Your task to perform on an android device: Open location settings Image 0: 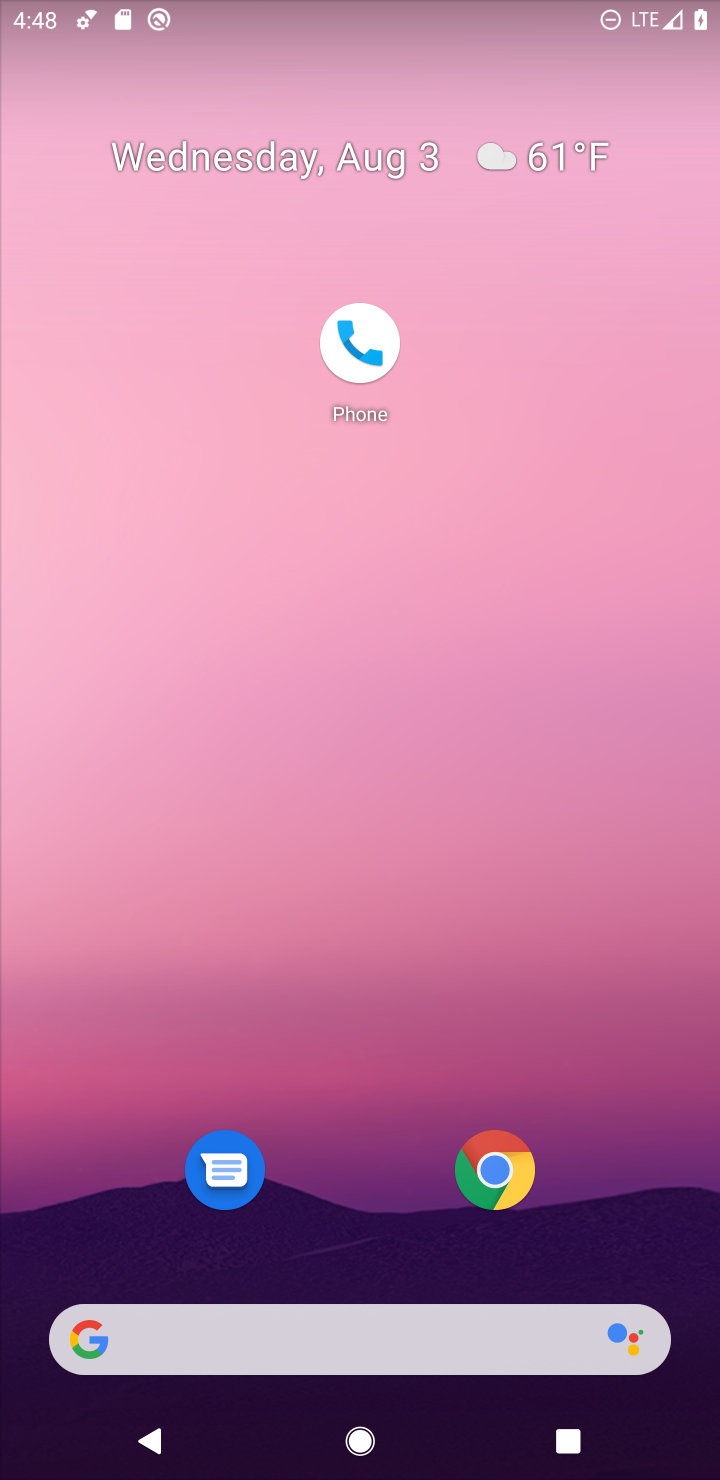
Step 0: drag from (316, 1012) to (467, 16)
Your task to perform on an android device: Open location settings Image 1: 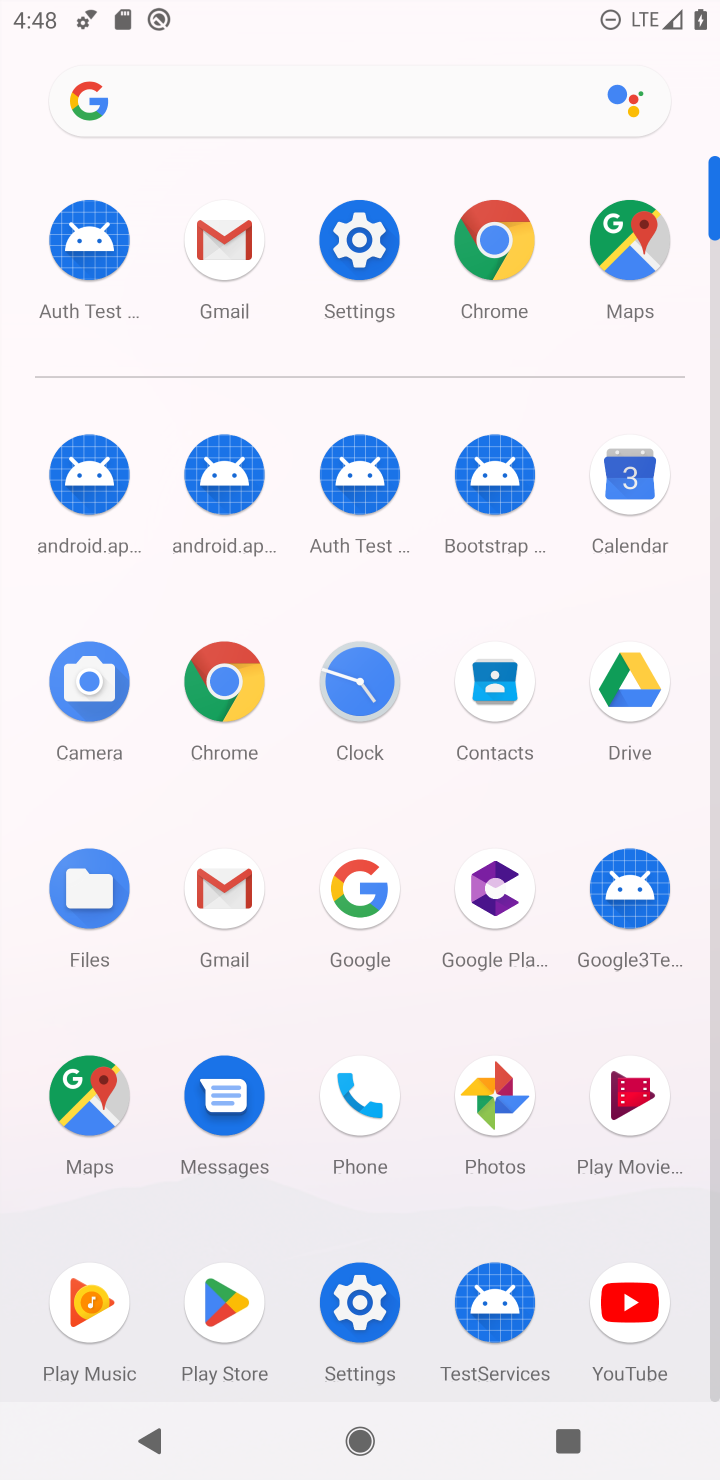
Step 1: click (359, 221)
Your task to perform on an android device: Open location settings Image 2: 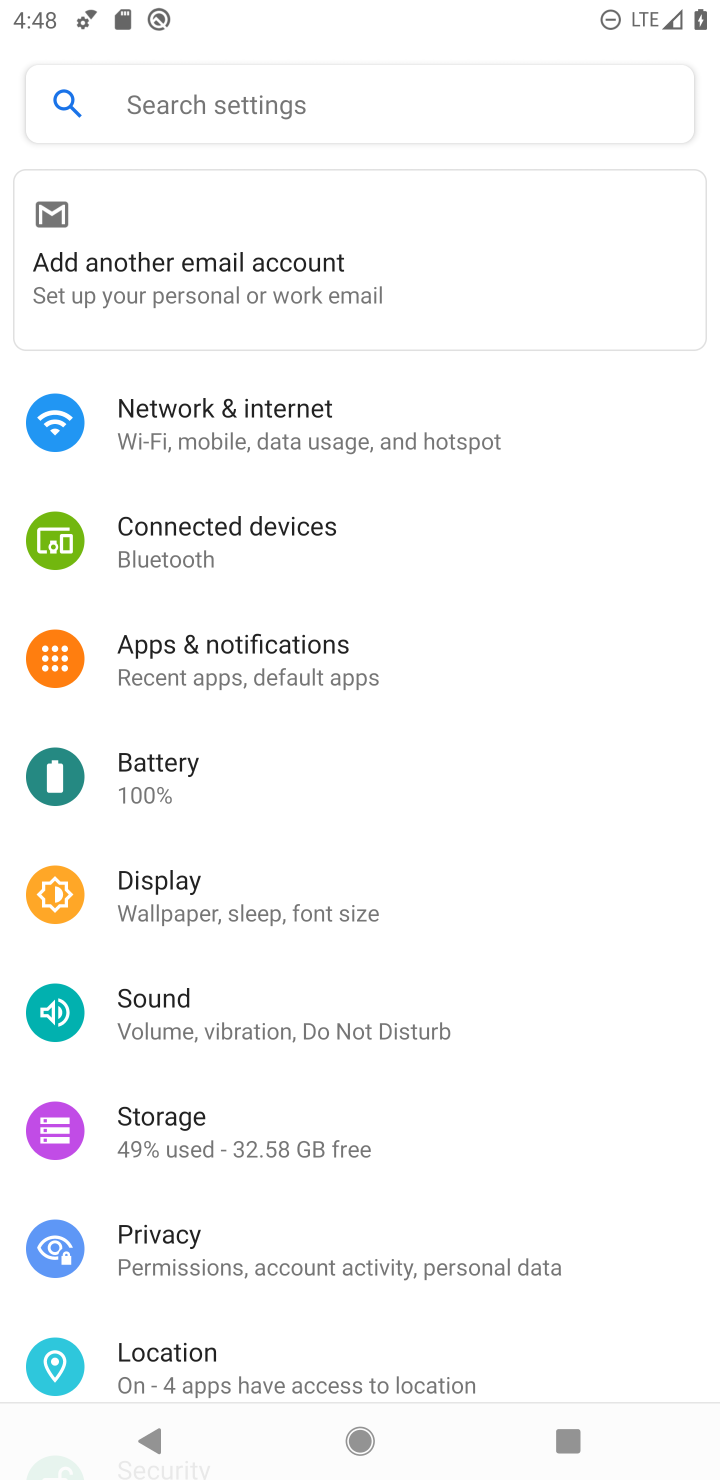
Step 2: click (170, 1323)
Your task to perform on an android device: Open location settings Image 3: 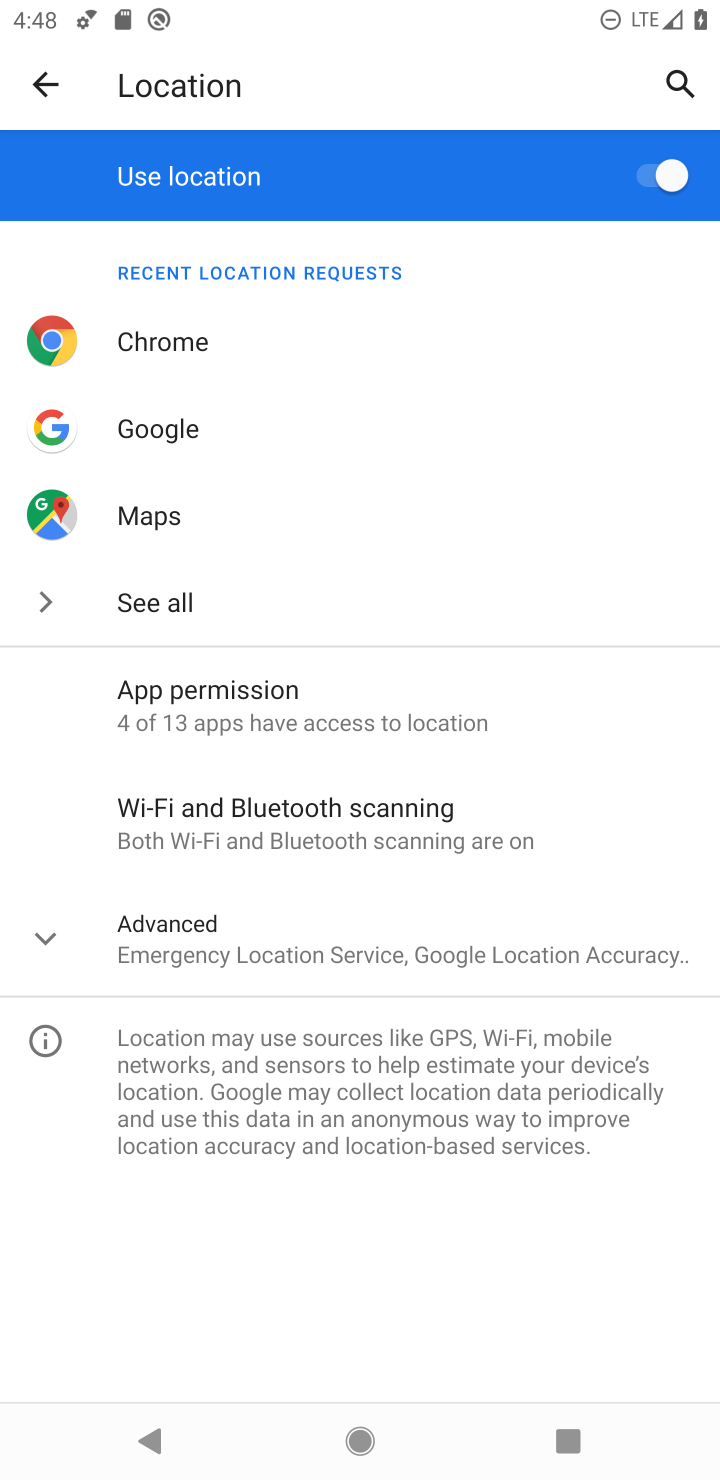
Step 3: task complete